Your task to perform on an android device: Show me the alarms in the clock app Image 0: 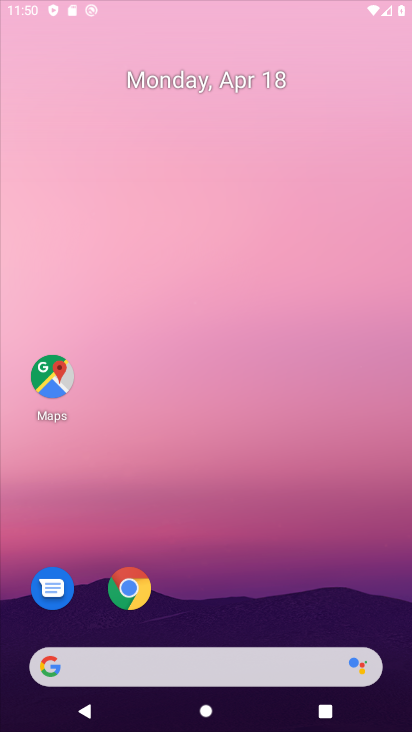
Step 0: click (360, 23)
Your task to perform on an android device: Show me the alarms in the clock app Image 1: 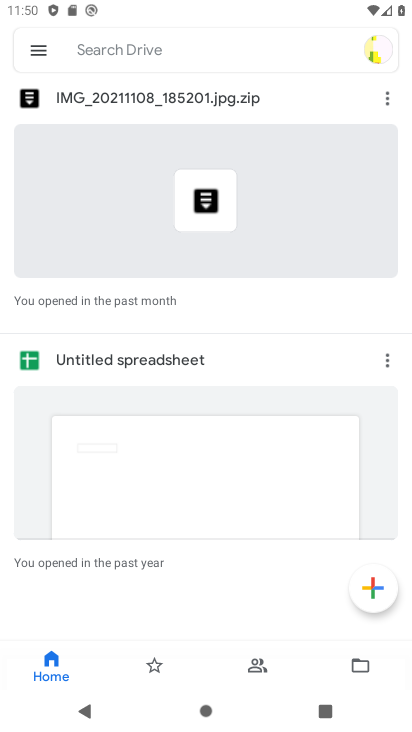
Step 1: press home button
Your task to perform on an android device: Show me the alarms in the clock app Image 2: 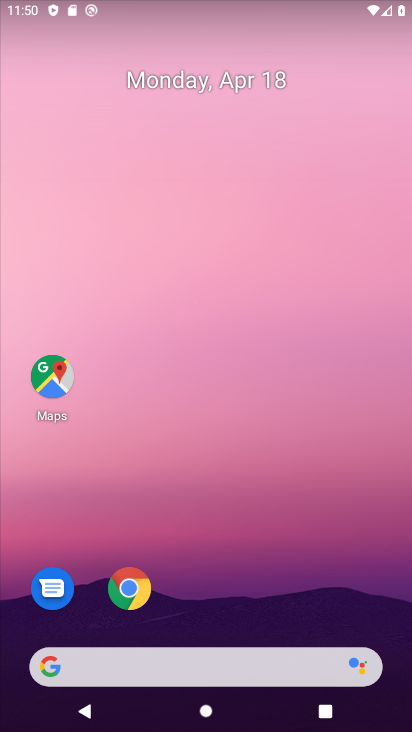
Step 2: drag from (354, 570) to (349, 94)
Your task to perform on an android device: Show me the alarms in the clock app Image 3: 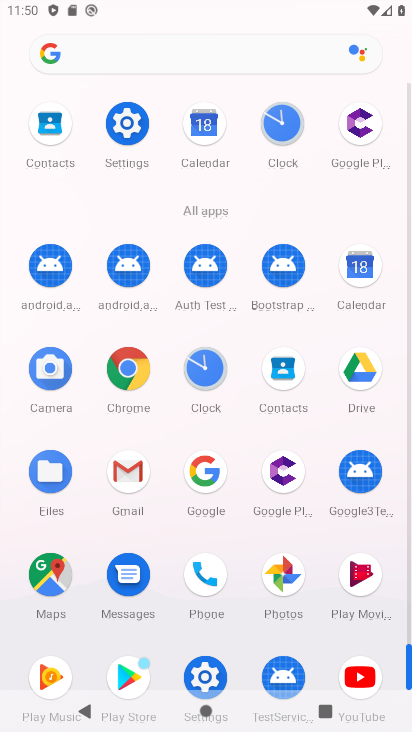
Step 3: click (205, 368)
Your task to perform on an android device: Show me the alarms in the clock app Image 4: 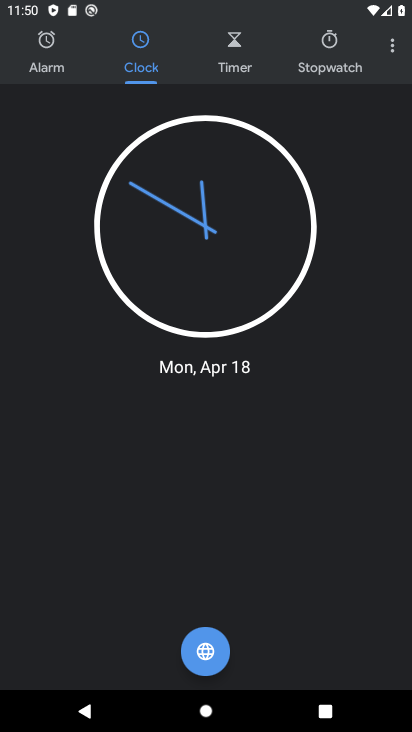
Step 4: click (47, 38)
Your task to perform on an android device: Show me the alarms in the clock app Image 5: 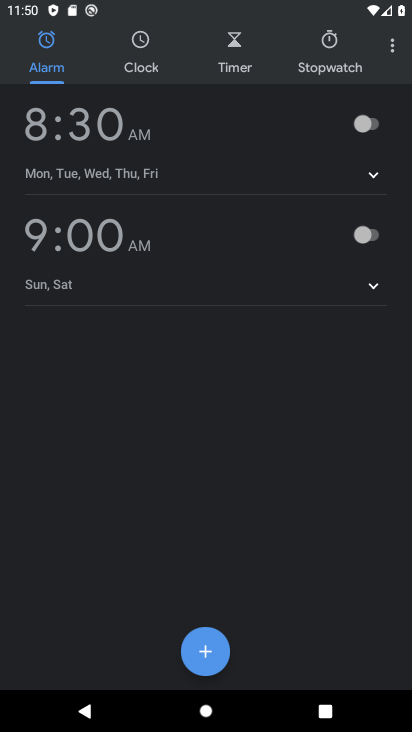
Step 5: task complete